Your task to perform on an android device: turn off priority inbox in the gmail app Image 0: 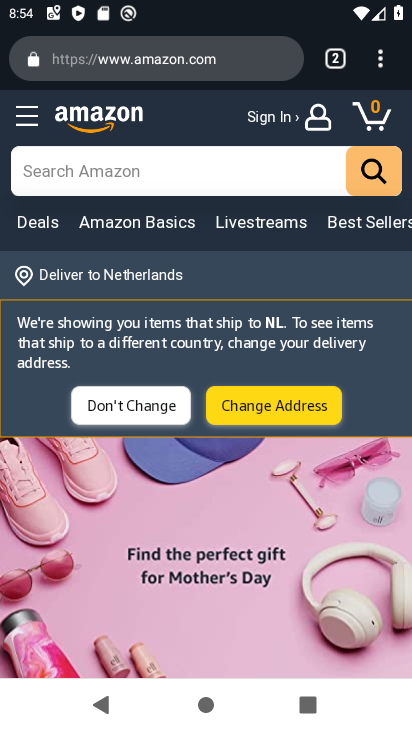
Step 0: press home button
Your task to perform on an android device: turn off priority inbox in the gmail app Image 1: 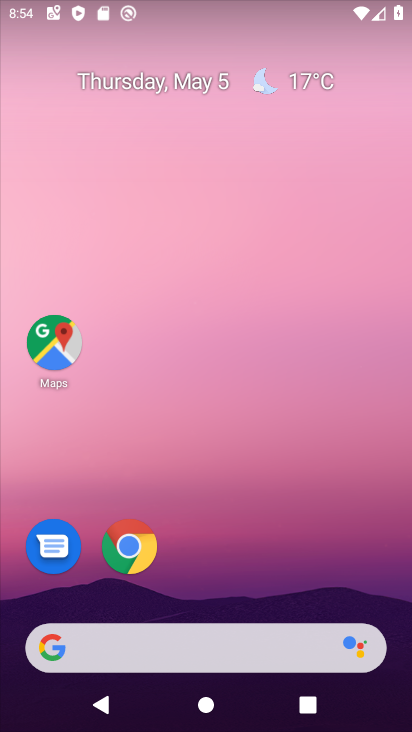
Step 1: drag from (164, 655) to (301, 152)
Your task to perform on an android device: turn off priority inbox in the gmail app Image 2: 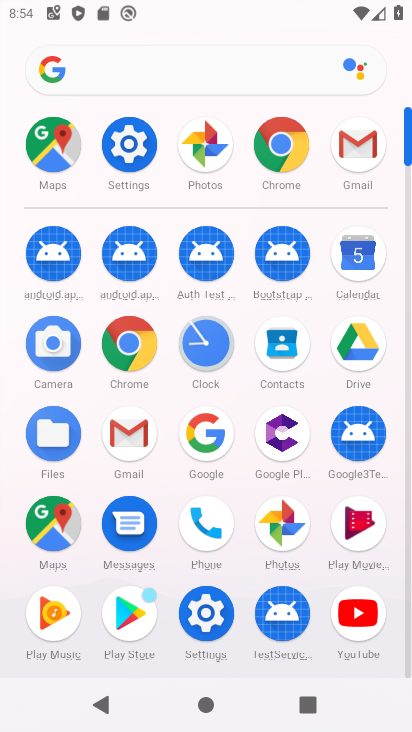
Step 2: click (358, 150)
Your task to perform on an android device: turn off priority inbox in the gmail app Image 3: 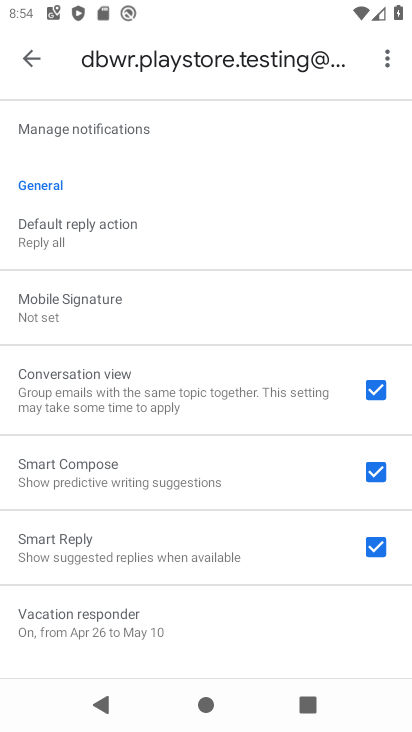
Step 3: drag from (297, 169) to (253, 559)
Your task to perform on an android device: turn off priority inbox in the gmail app Image 4: 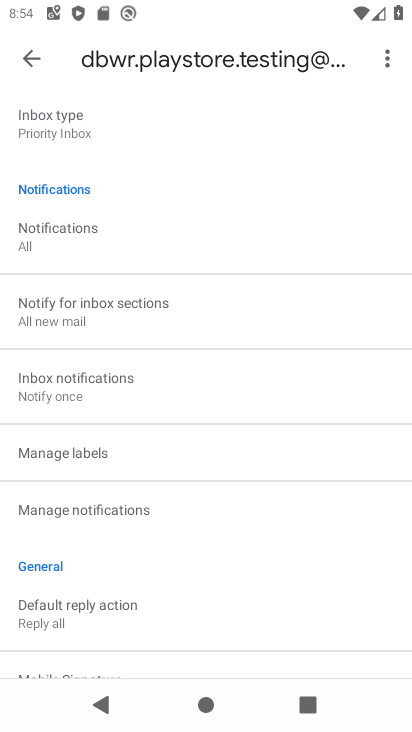
Step 4: click (68, 133)
Your task to perform on an android device: turn off priority inbox in the gmail app Image 5: 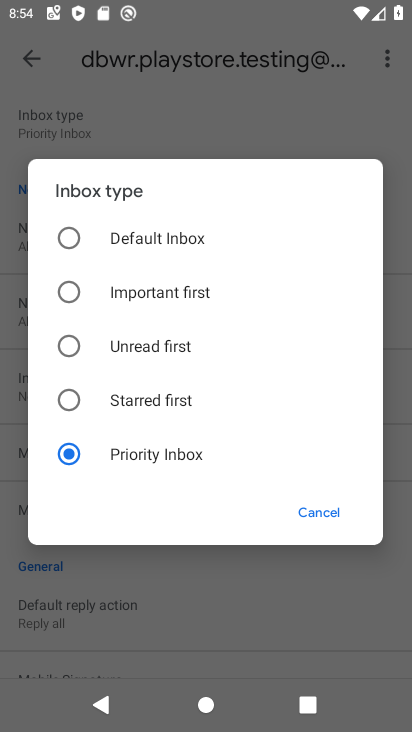
Step 5: click (70, 241)
Your task to perform on an android device: turn off priority inbox in the gmail app Image 6: 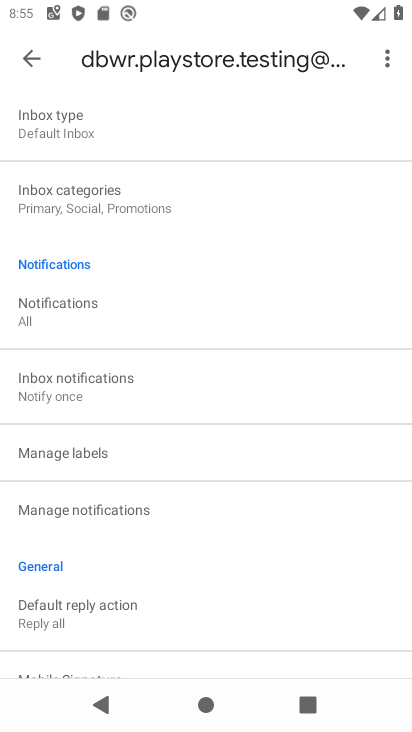
Step 6: task complete